Your task to perform on an android device: turn smart compose on in the gmail app Image 0: 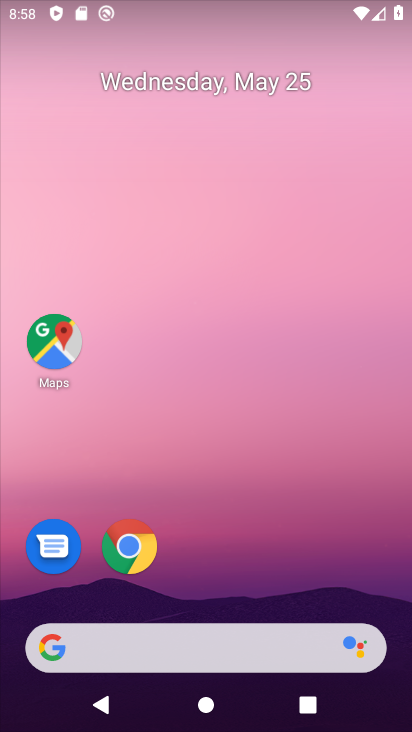
Step 0: drag from (260, 554) to (263, 281)
Your task to perform on an android device: turn smart compose on in the gmail app Image 1: 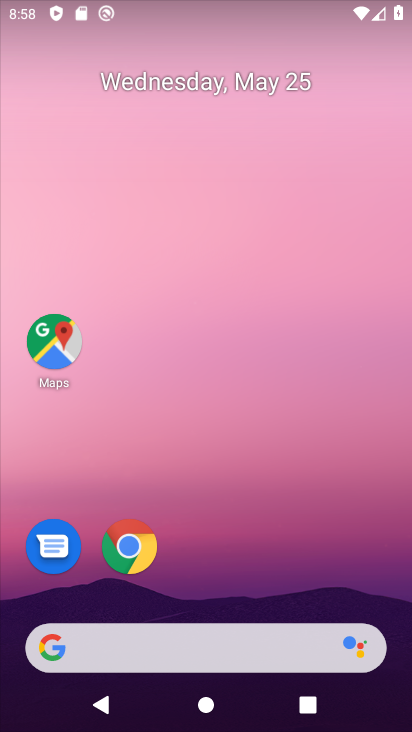
Step 1: drag from (247, 556) to (243, 243)
Your task to perform on an android device: turn smart compose on in the gmail app Image 2: 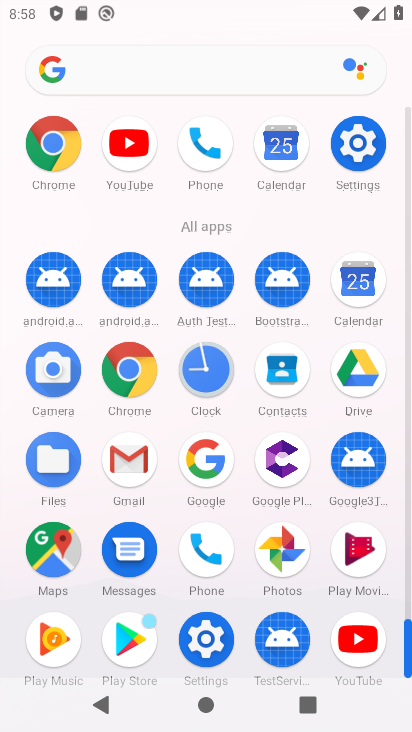
Step 2: click (131, 447)
Your task to perform on an android device: turn smart compose on in the gmail app Image 3: 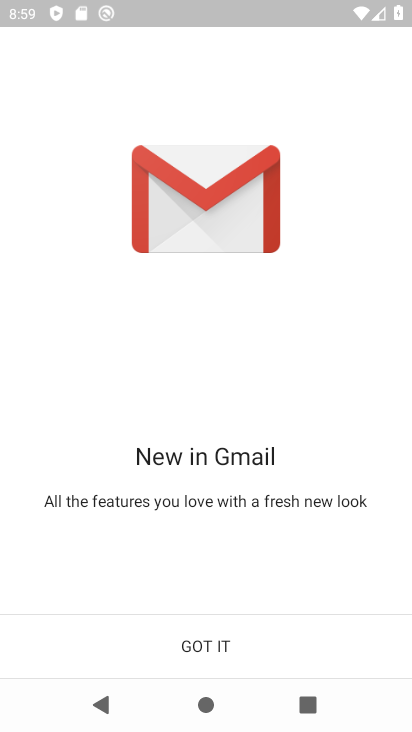
Step 3: click (214, 640)
Your task to perform on an android device: turn smart compose on in the gmail app Image 4: 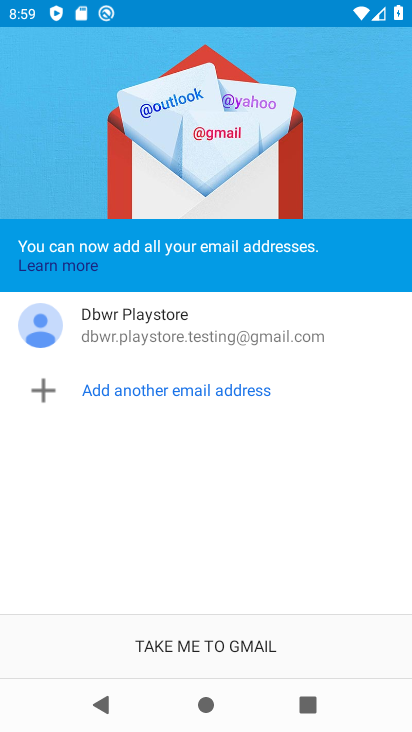
Step 4: click (223, 646)
Your task to perform on an android device: turn smart compose on in the gmail app Image 5: 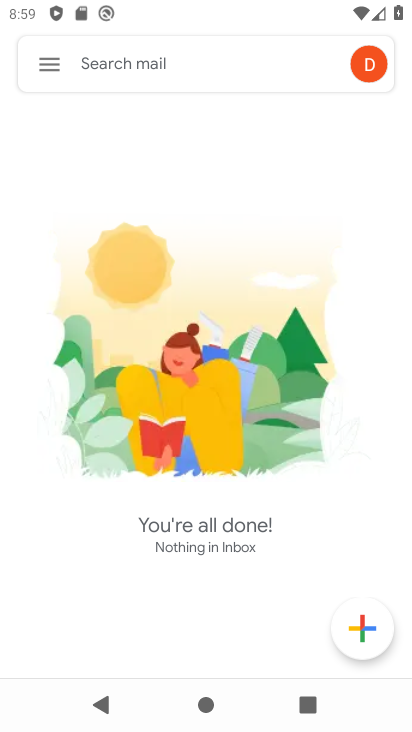
Step 5: click (46, 66)
Your task to perform on an android device: turn smart compose on in the gmail app Image 6: 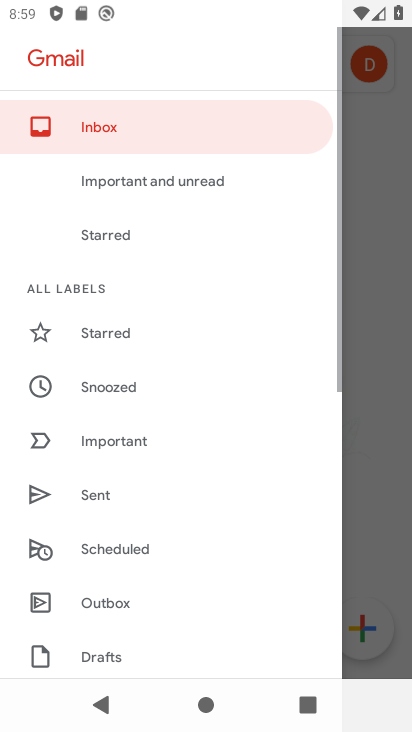
Step 6: drag from (142, 583) to (160, 255)
Your task to perform on an android device: turn smart compose on in the gmail app Image 7: 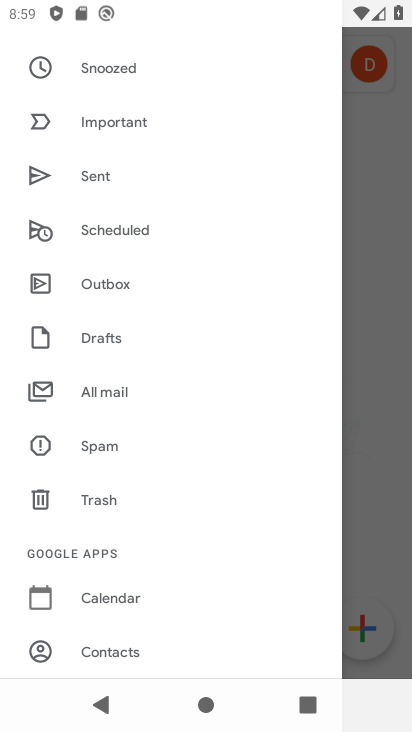
Step 7: drag from (122, 639) to (150, 293)
Your task to perform on an android device: turn smart compose on in the gmail app Image 8: 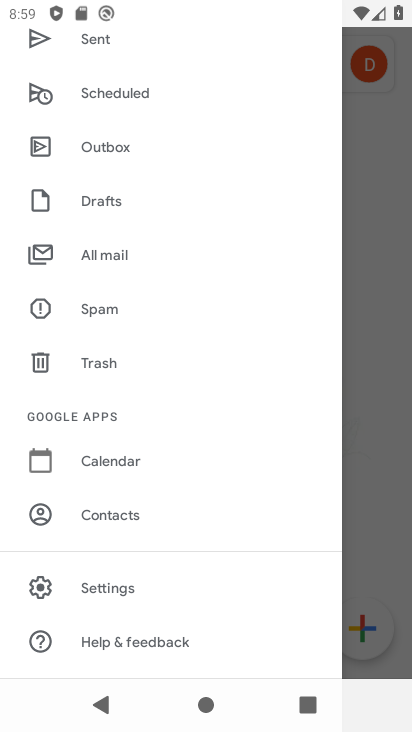
Step 8: click (115, 579)
Your task to perform on an android device: turn smart compose on in the gmail app Image 9: 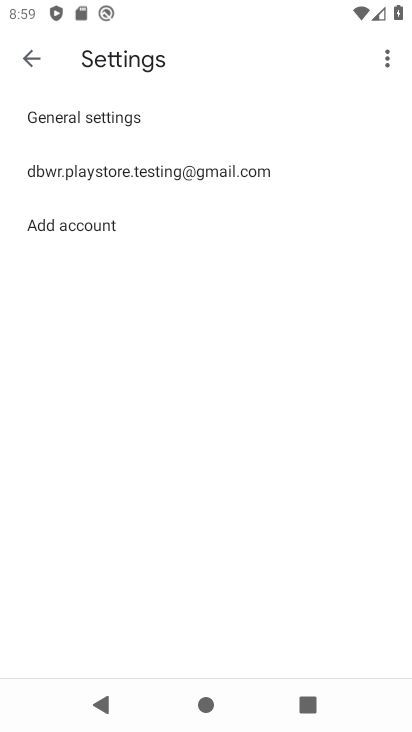
Step 9: click (84, 163)
Your task to perform on an android device: turn smart compose on in the gmail app Image 10: 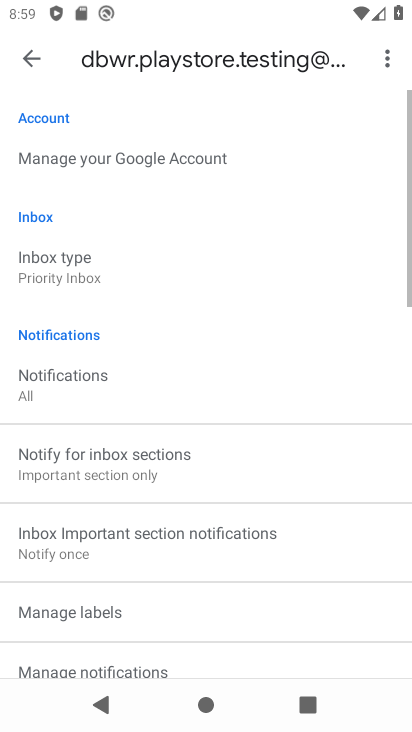
Step 10: task complete